Your task to perform on an android device: turn on improve location accuracy Image 0: 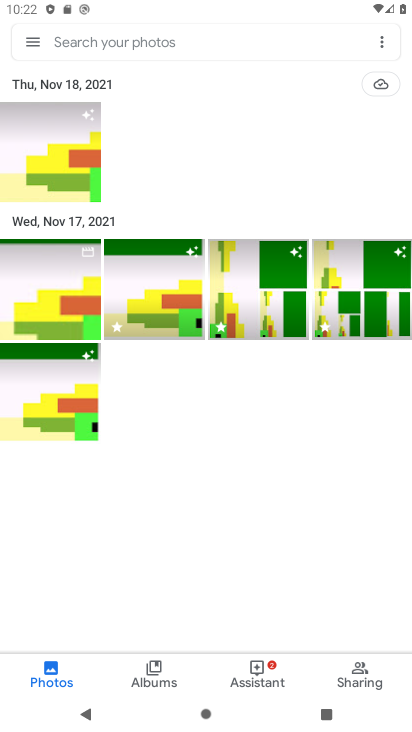
Step 0: click (32, 40)
Your task to perform on an android device: turn on improve location accuracy Image 1: 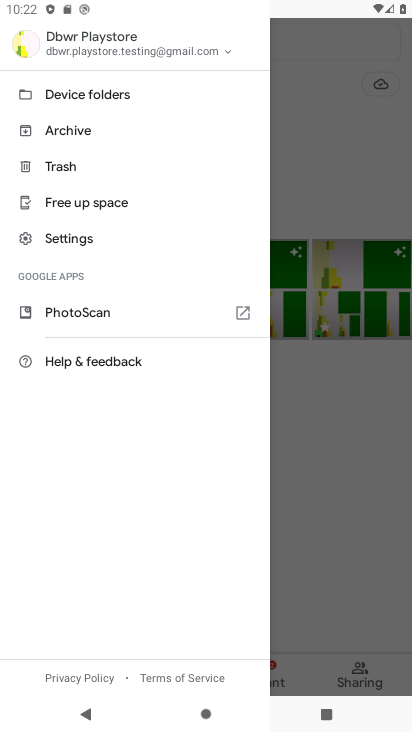
Step 1: click (81, 244)
Your task to perform on an android device: turn on improve location accuracy Image 2: 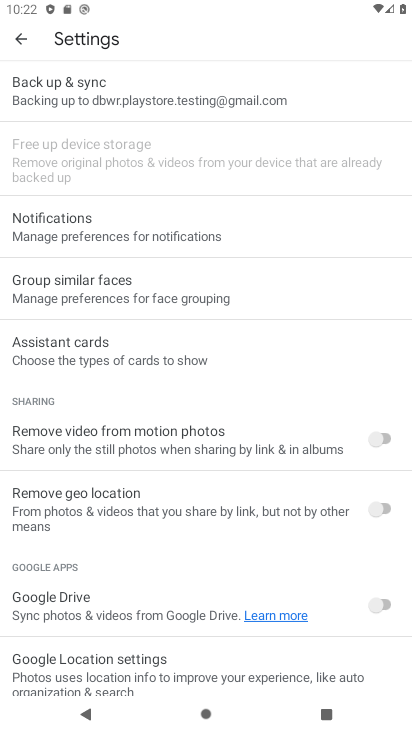
Step 2: press home button
Your task to perform on an android device: turn on improve location accuracy Image 3: 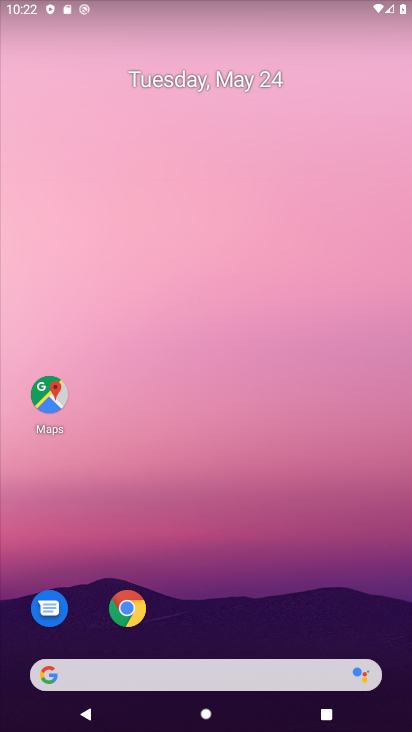
Step 3: drag from (396, 640) to (320, 54)
Your task to perform on an android device: turn on improve location accuracy Image 4: 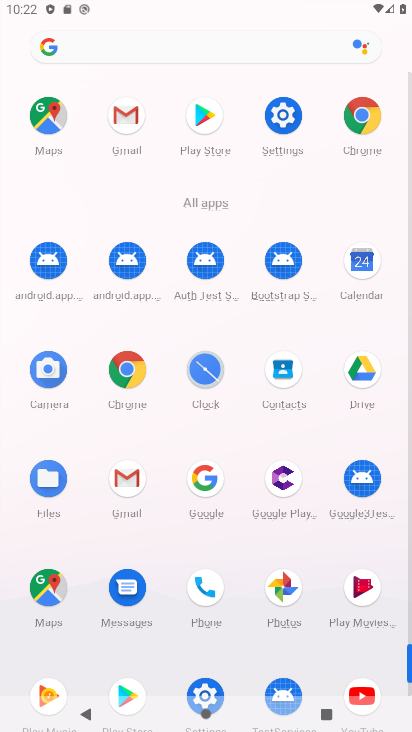
Step 4: click (410, 686)
Your task to perform on an android device: turn on improve location accuracy Image 5: 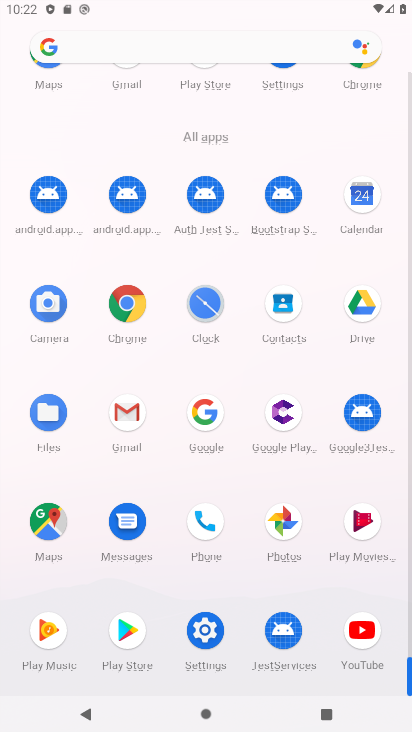
Step 5: click (205, 631)
Your task to perform on an android device: turn on improve location accuracy Image 6: 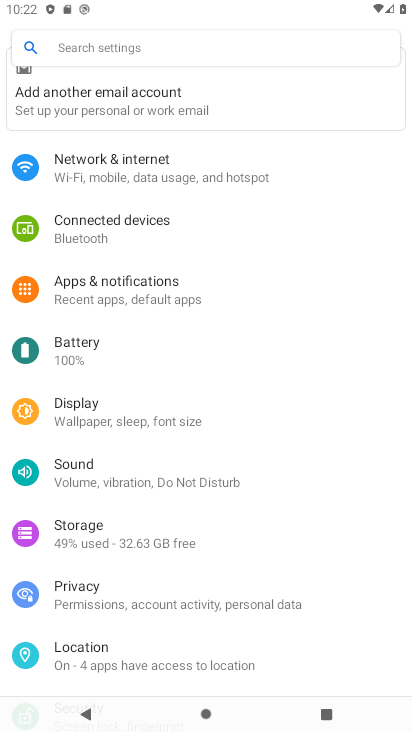
Step 6: click (99, 640)
Your task to perform on an android device: turn on improve location accuracy Image 7: 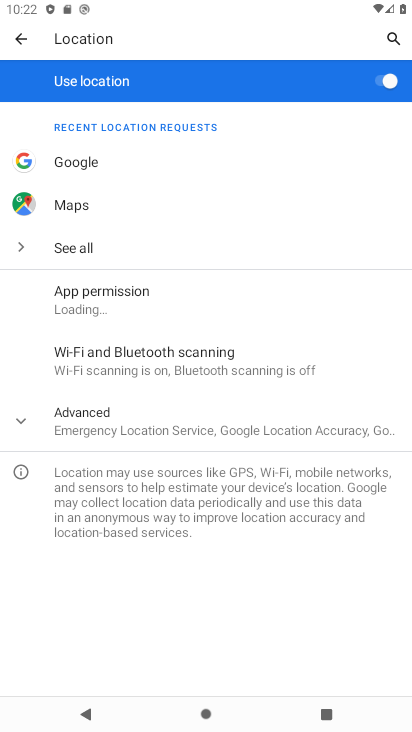
Step 7: click (15, 421)
Your task to perform on an android device: turn on improve location accuracy Image 8: 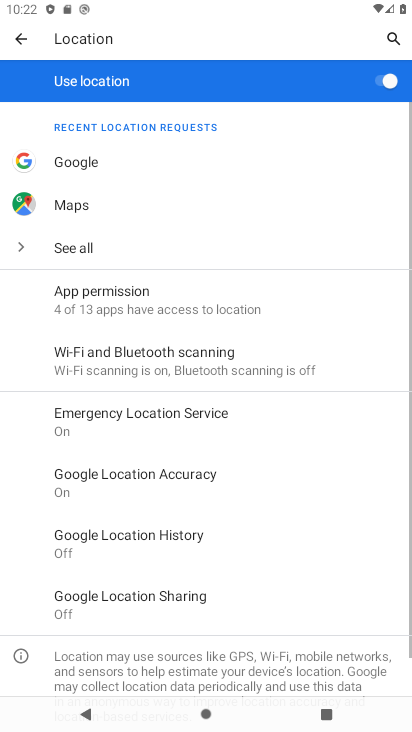
Step 8: click (104, 465)
Your task to perform on an android device: turn on improve location accuracy Image 9: 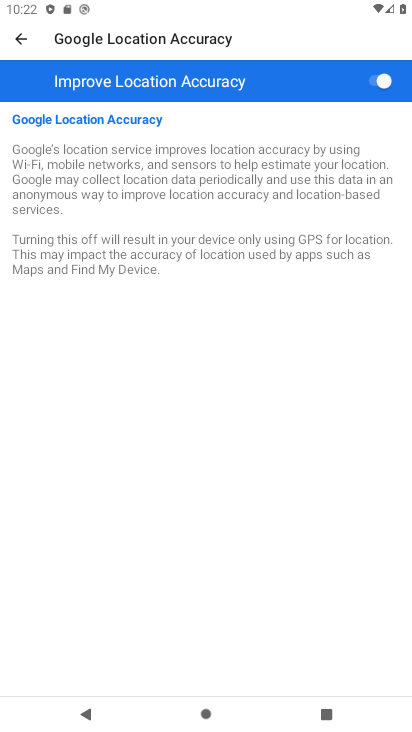
Step 9: task complete